Your task to perform on an android device: snooze an email in the gmail app Image 0: 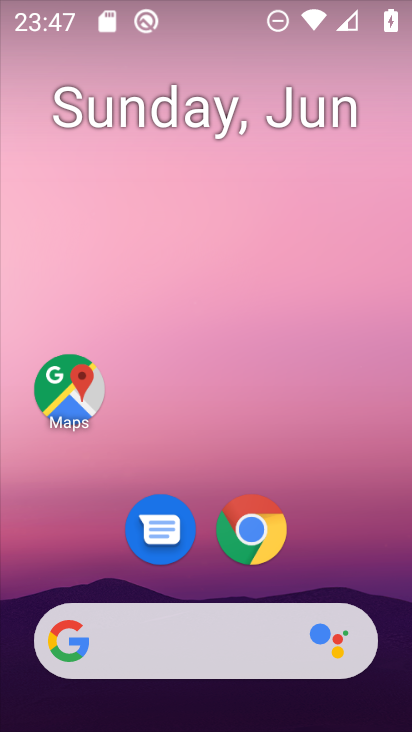
Step 0: drag from (399, 625) to (310, 14)
Your task to perform on an android device: snooze an email in the gmail app Image 1: 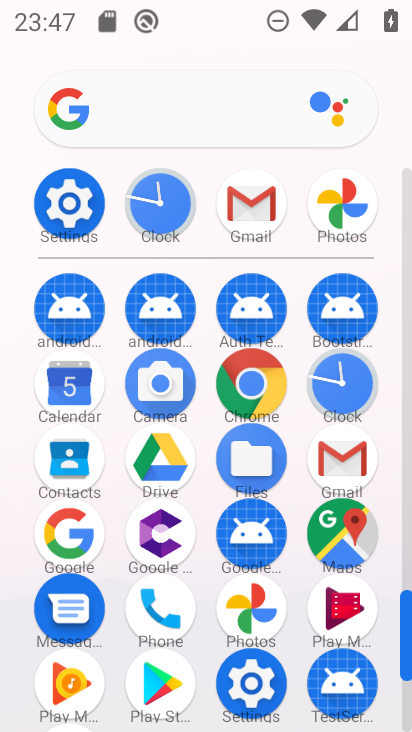
Step 1: click (339, 461)
Your task to perform on an android device: snooze an email in the gmail app Image 2: 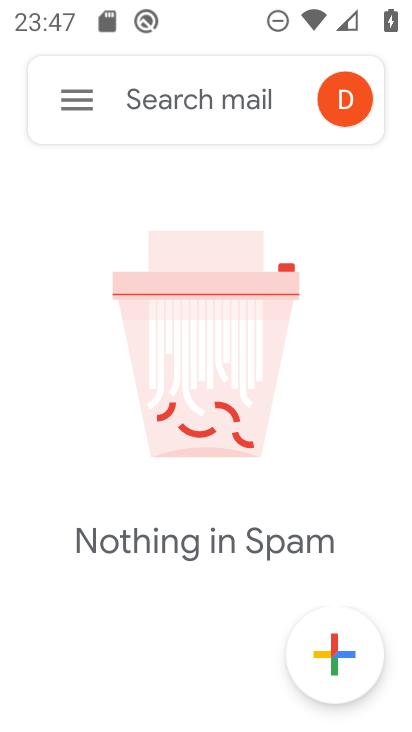
Step 2: click (67, 94)
Your task to perform on an android device: snooze an email in the gmail app Image 3: 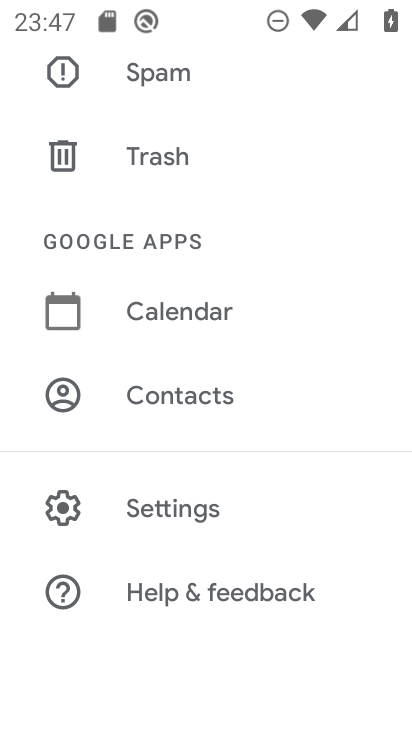
Step 3: drag from (305, 210) to (277, 470)
Your task to perform on an android device: snooze an email in the gmail app Image 4: 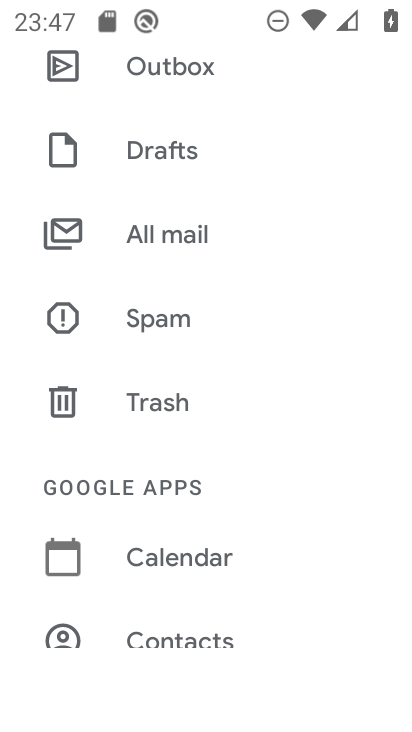
Step 4: click (160, 233)
Your task to perform on an android device: snooze an email in the gmail app Image 5: 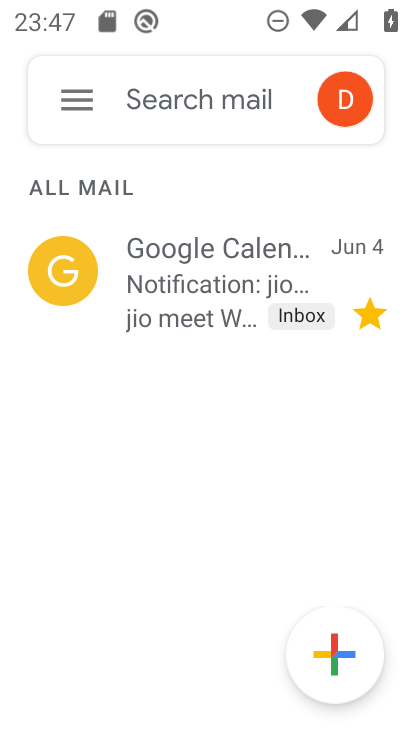
Step 5: click (267, 290)
Your task to perform on an android device: snooze an email in the gmail app Image 6: 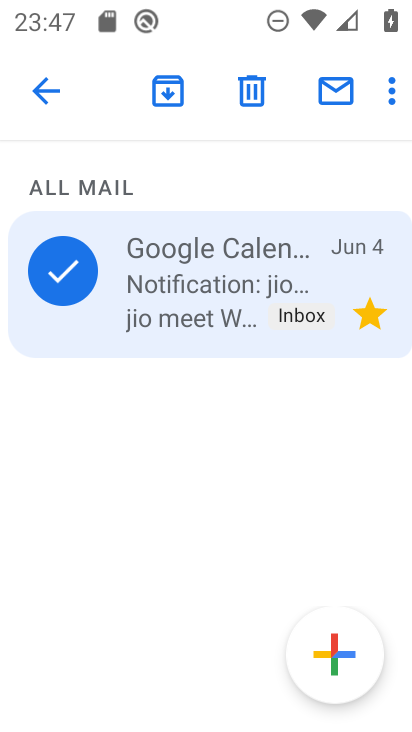
Step 6: click (390, 101)
Your task to perform on an android device: snooze an email in the gmail app Image 7: 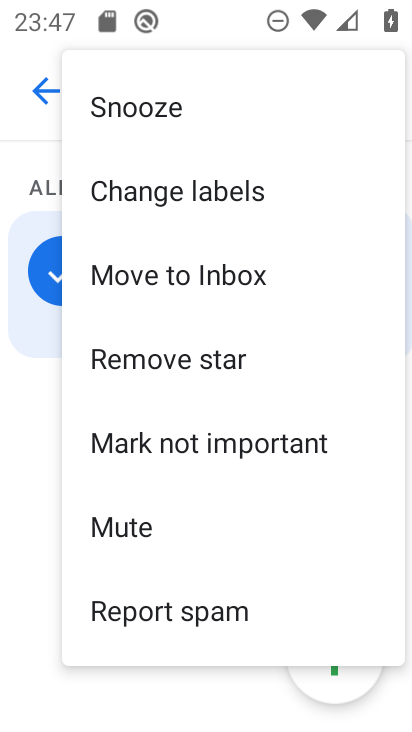
Step 7: click (139, 106)
Your task to perform on an android device: snooze an email in the gmail app Image 8: 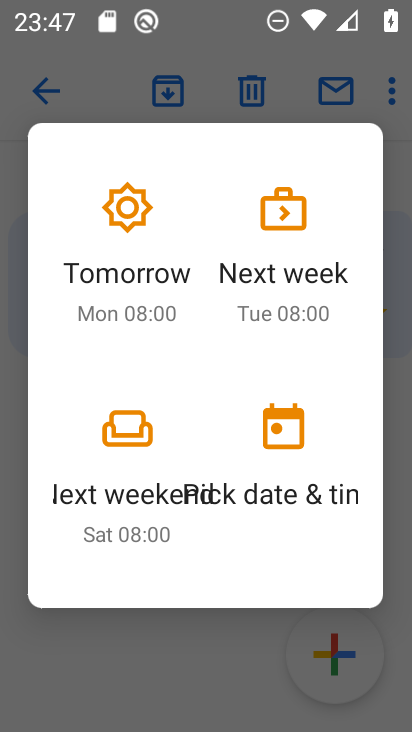
Step 8: click (118, 279)
Your task to perform on an android device: snooze an email in the gmail app Image 9: 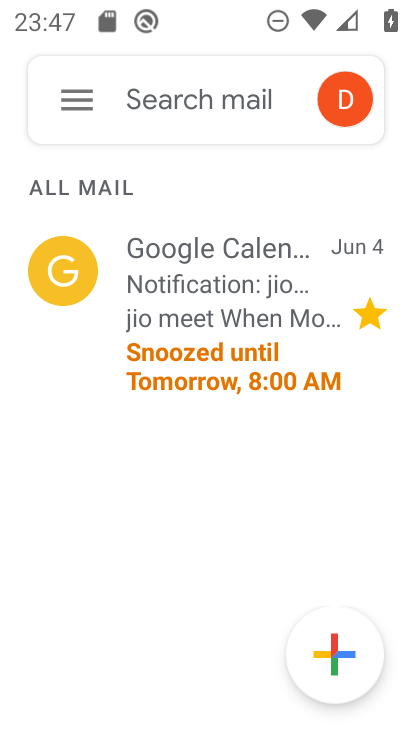
Step 9: task complete